Your task to perform on an android device: Add "corsair k70" to the cart on amazon.com Image 0: 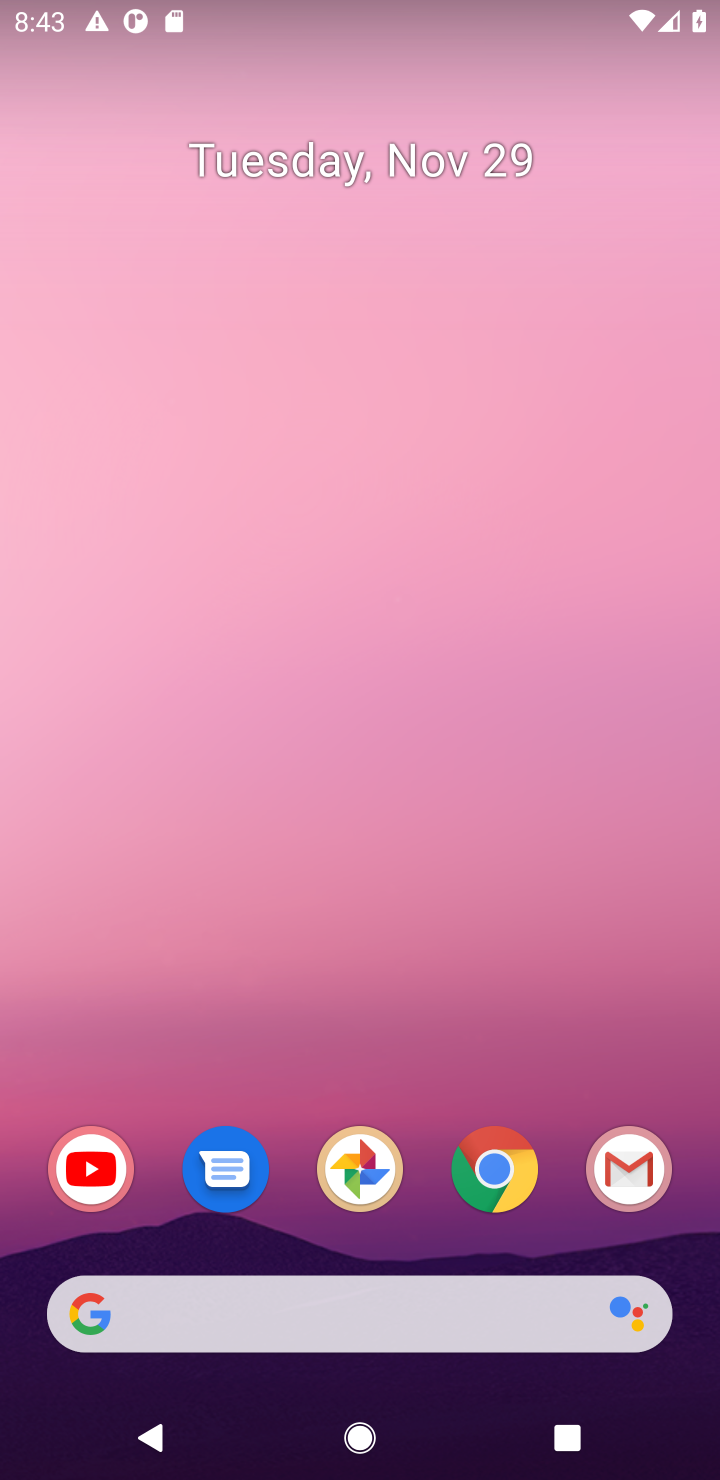
Step 0: click (247, 1328)
Your task to perform on an android device: Add "corsair k70" to the cart on amazon.com Image 1: 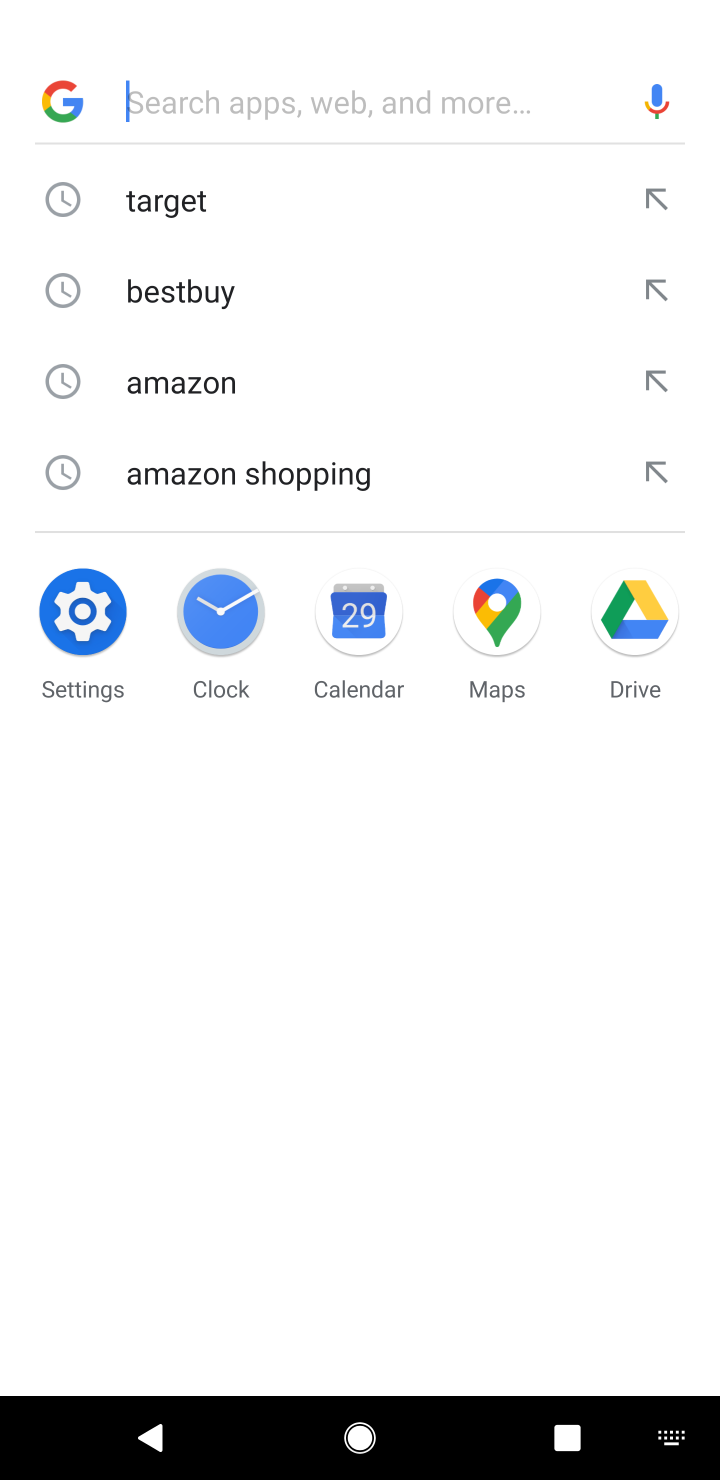
Step 1: click (205, 372)
Your task to perform on an android device: Add "corsair k70" to the cart on amazon.com Image 2: 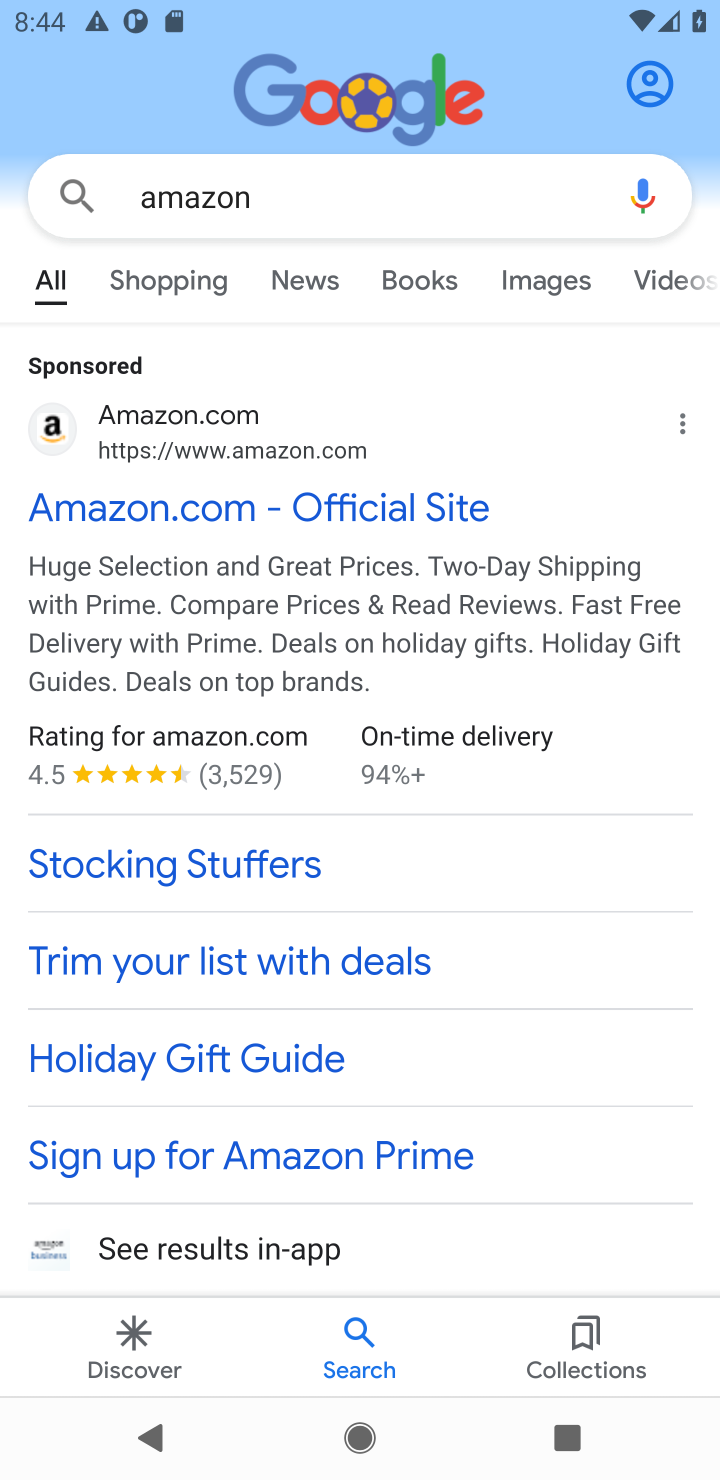
Step 2: click (168, 488)
Your task to perform on an android device: Add "corsair k70" to the cart on amazon.com Image 3: 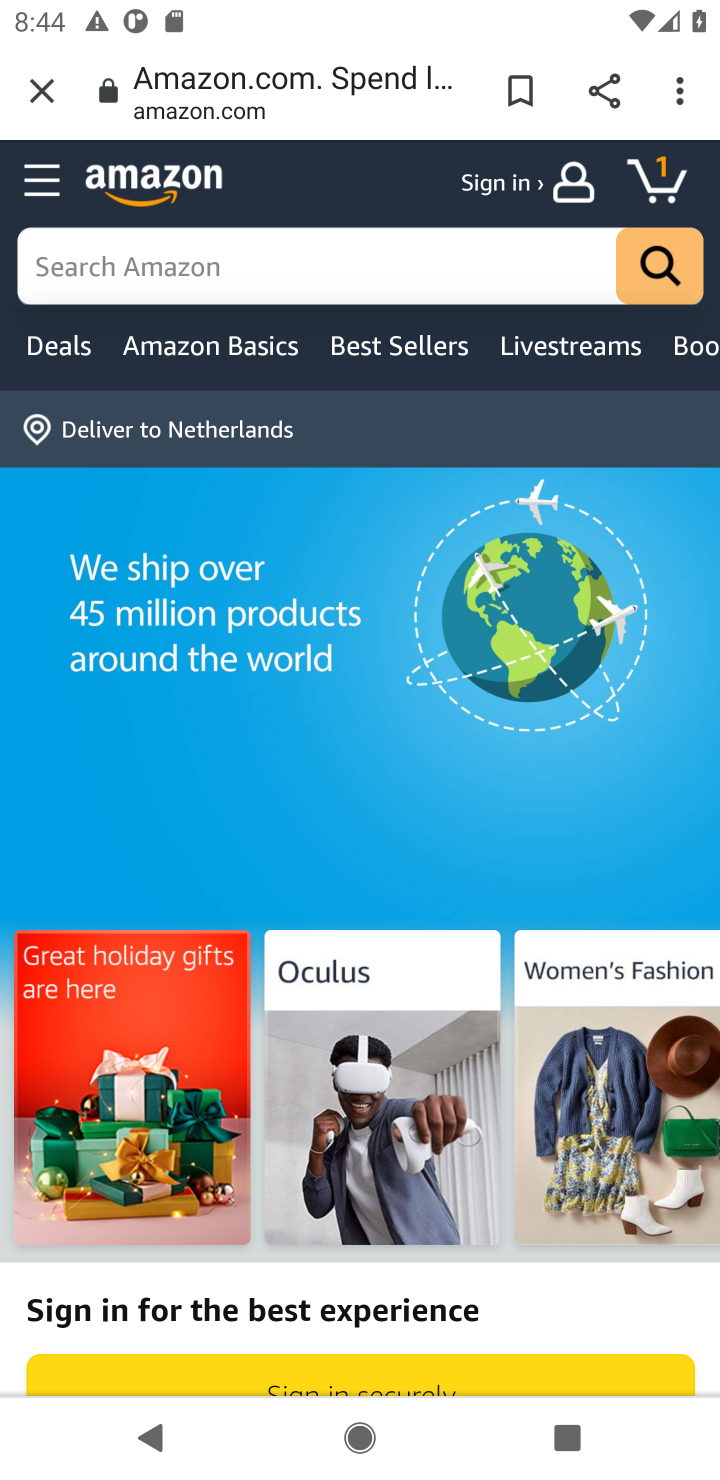
Step 3: click (107, 271)
Your task to perform on an android device: Add "corsair k70" to the cart on amazon.com Image 4: 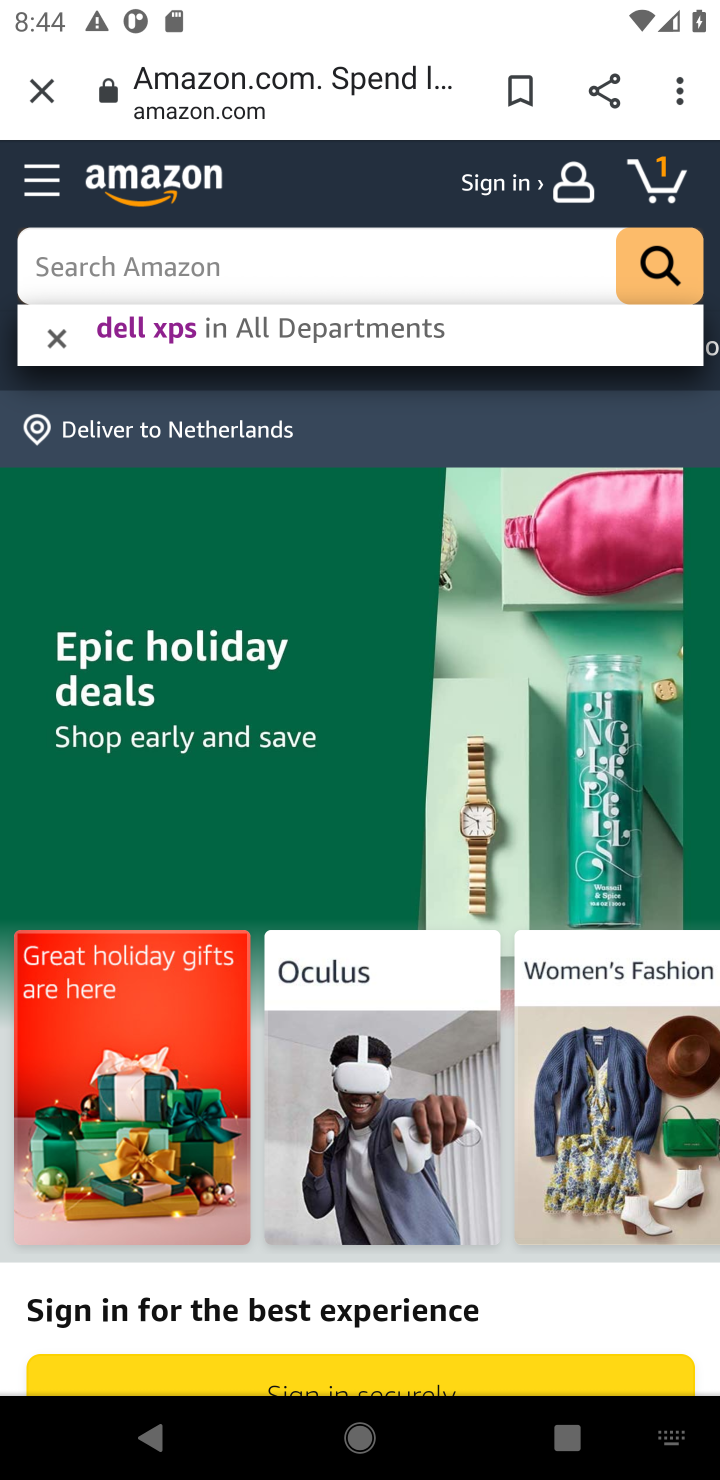
Step 4: type "corsair k70"
Your task to perform on an android device: Add "corsair k70" to the cart on amazon.com Image 5: 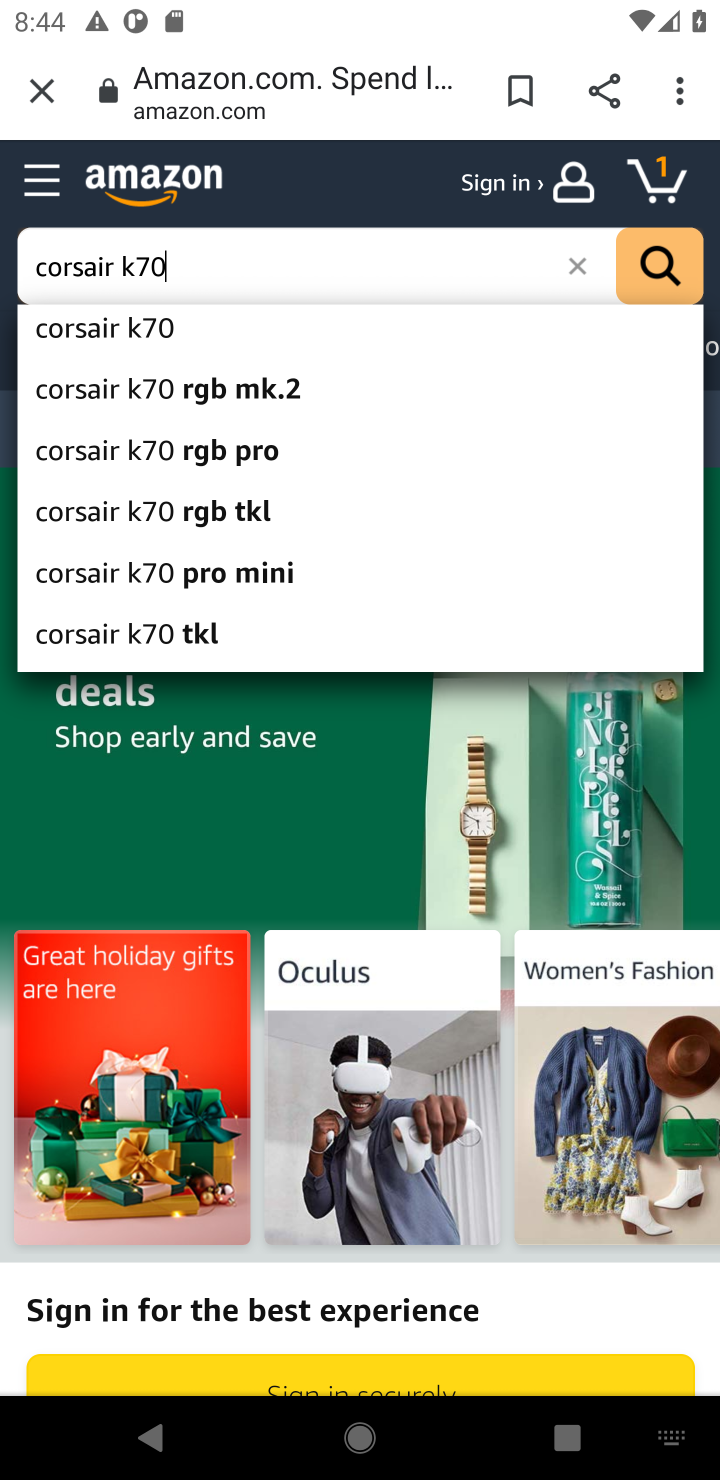
Step 5: click (59, 325)
Your task to perform on an android device: Add "corsair k70" to the cart on amazon.com Image 6: 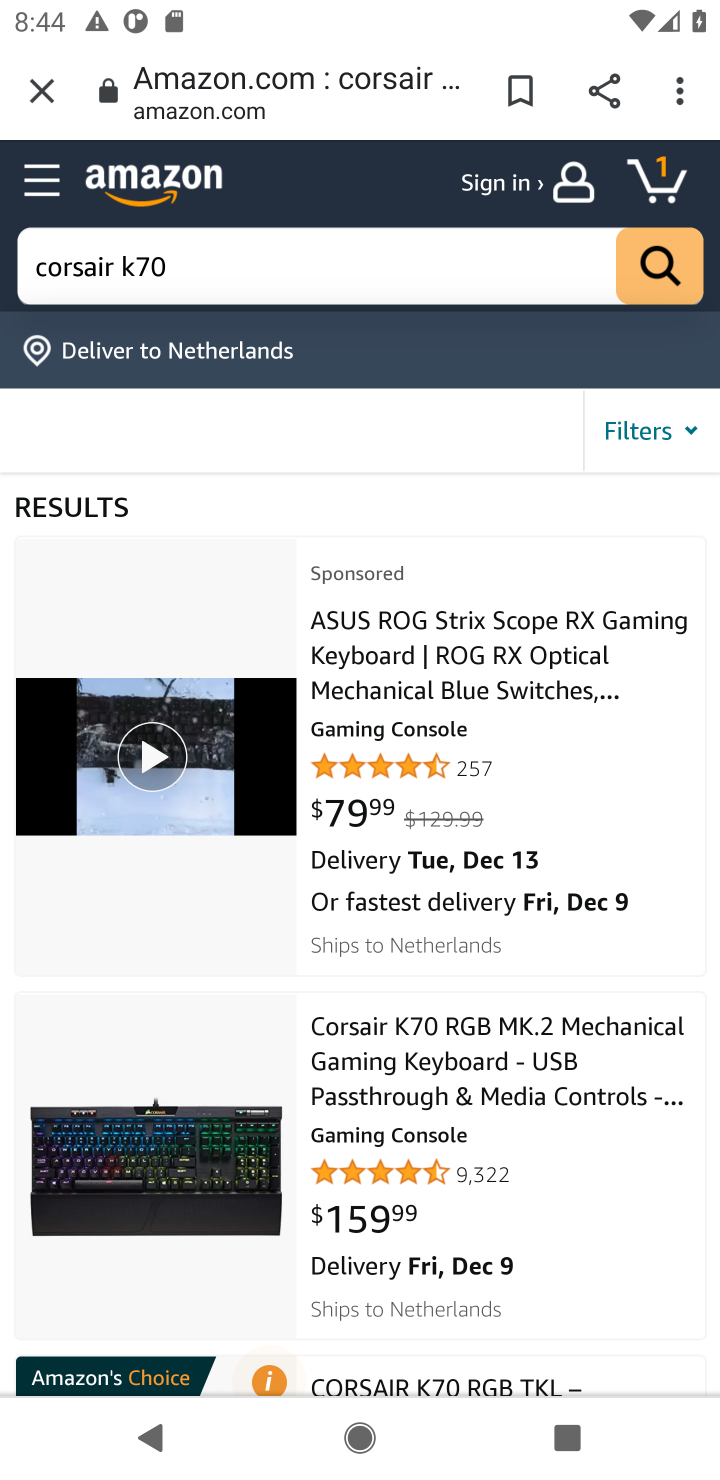
Step 6: click (366, 623)
Your task to perform on an android device: Add "corsair k70" to the cart on amazon.com Image 7: 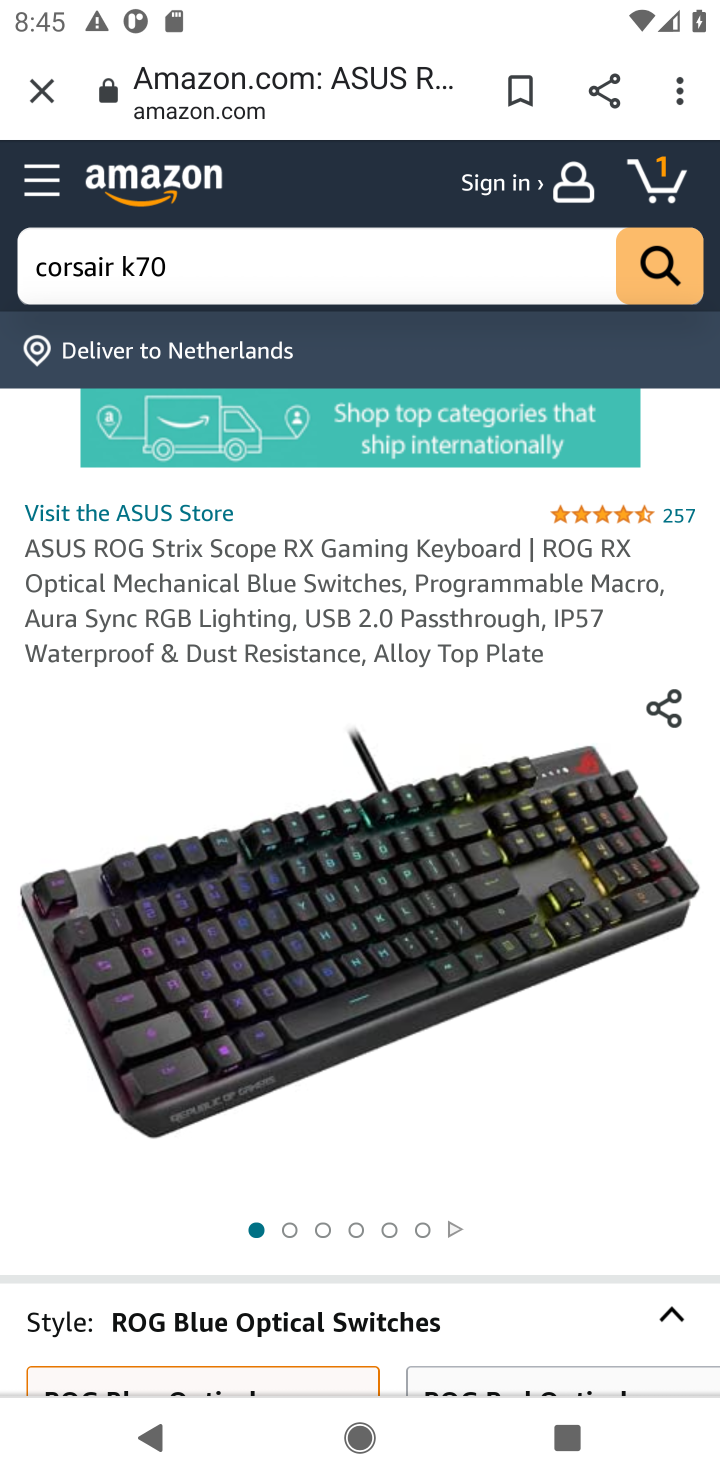
Step 7: drag from (416, 1194) to (362, 783)
Your task to perform on an android device: Add "corsair k70" to the cart on amazon.com Image 8: 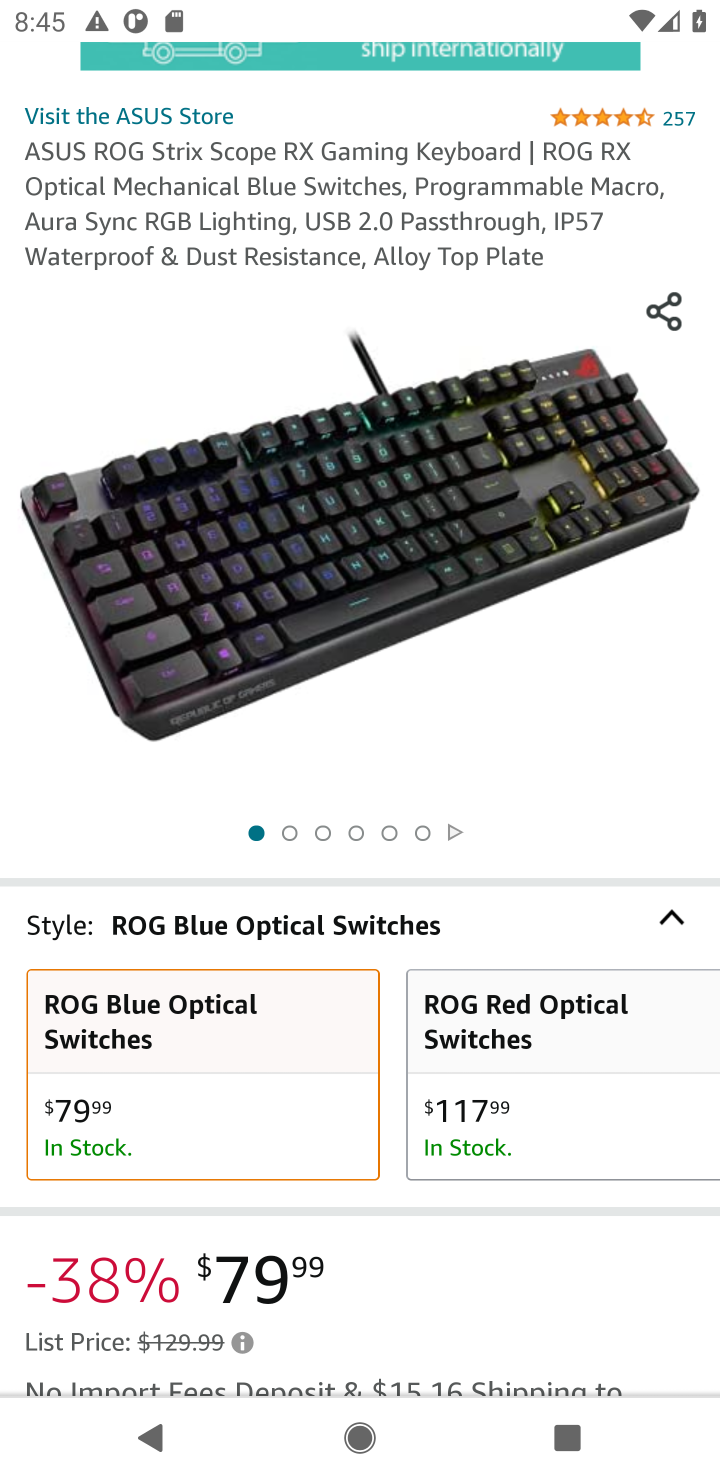
Step 8: click (408, 1296)
Your task to perform on an android device: Add "corsair k70" to the cart on amazon.com Image 9: 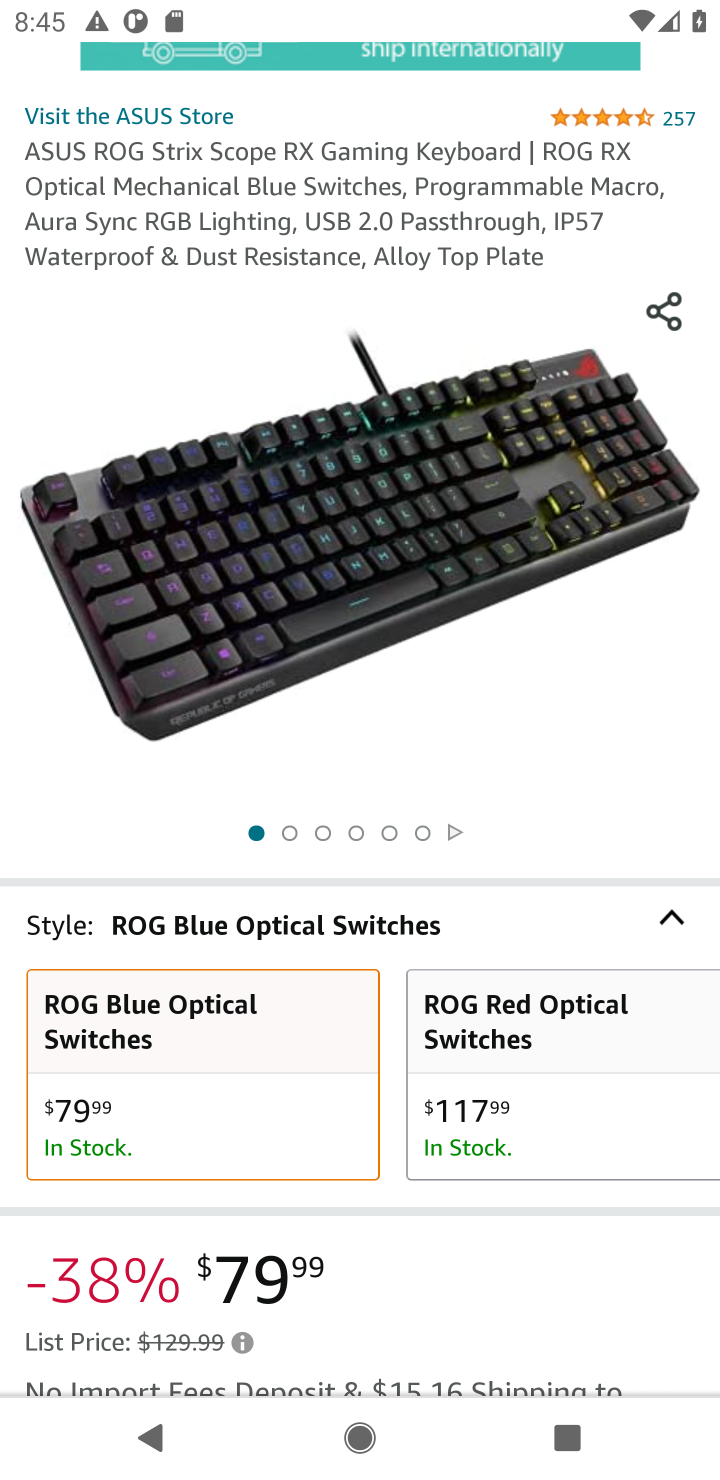
Step 9: drag from (449, 1291) to (425, 1088)
Your task to perform on an android device: Add "corsair k70" to the cart on amazon.com Image 10: 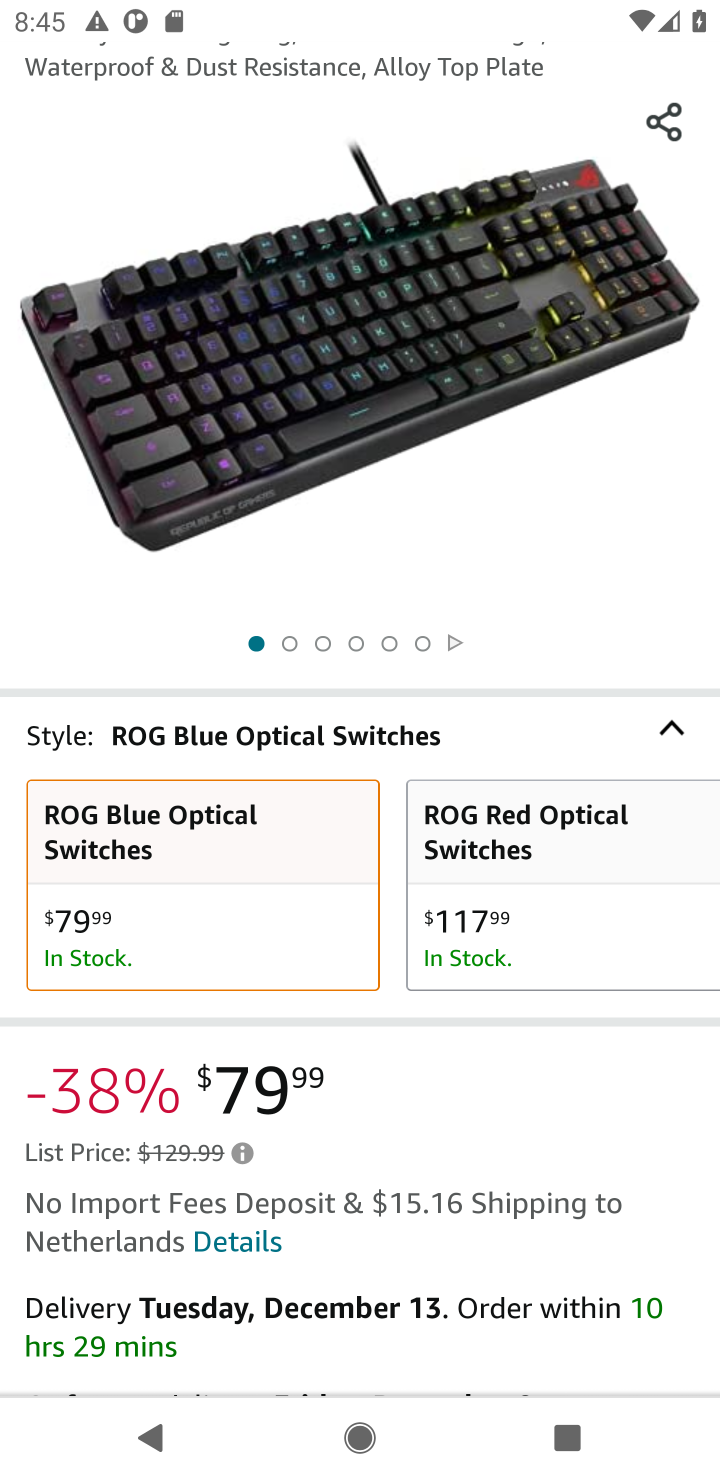
Step 10: drag from (460, 1123) to (460, 727)
Your task to perform on an android device: Add "corsair k70" to the cart on amazon.com Image 11: 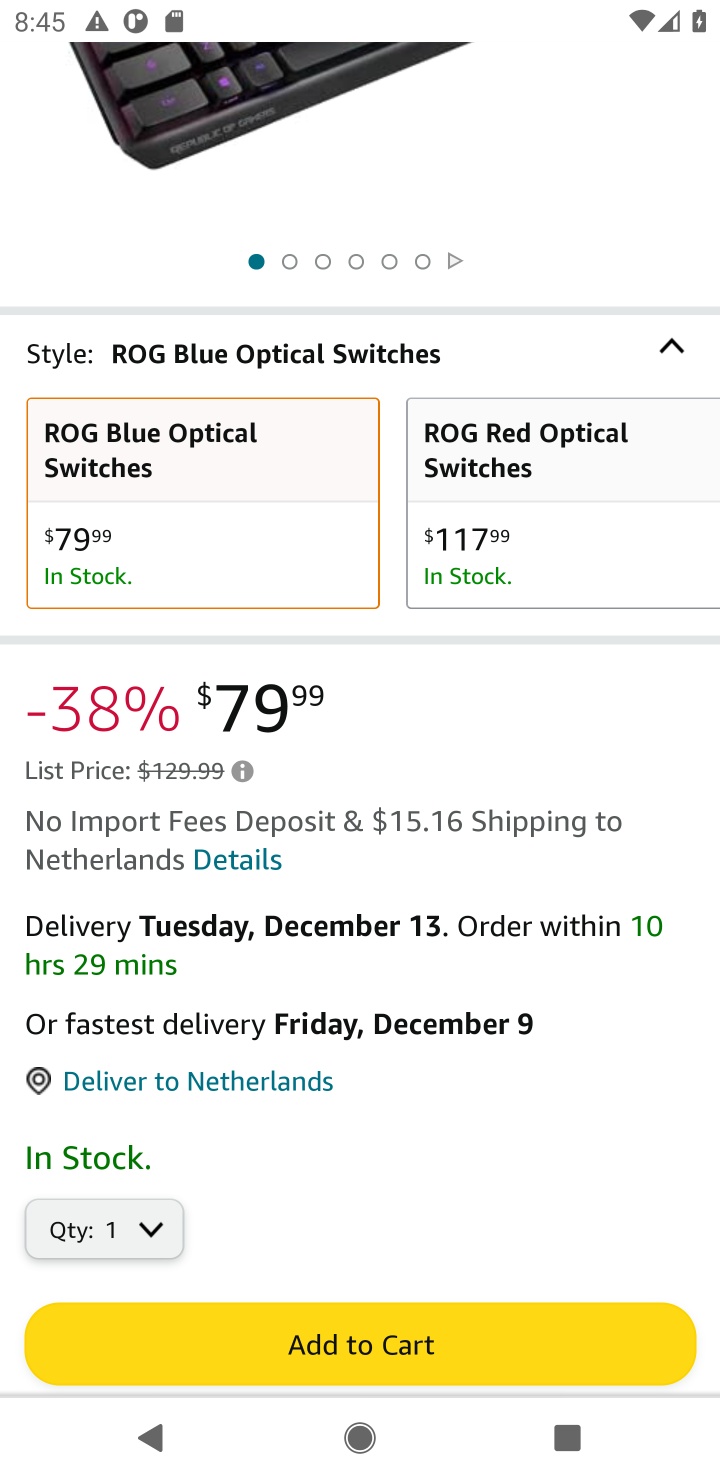
Step 11: click (391, 1323)
Your task to perform on an android device: Add "corsair k70" to the cart on amazon.com Image 12: 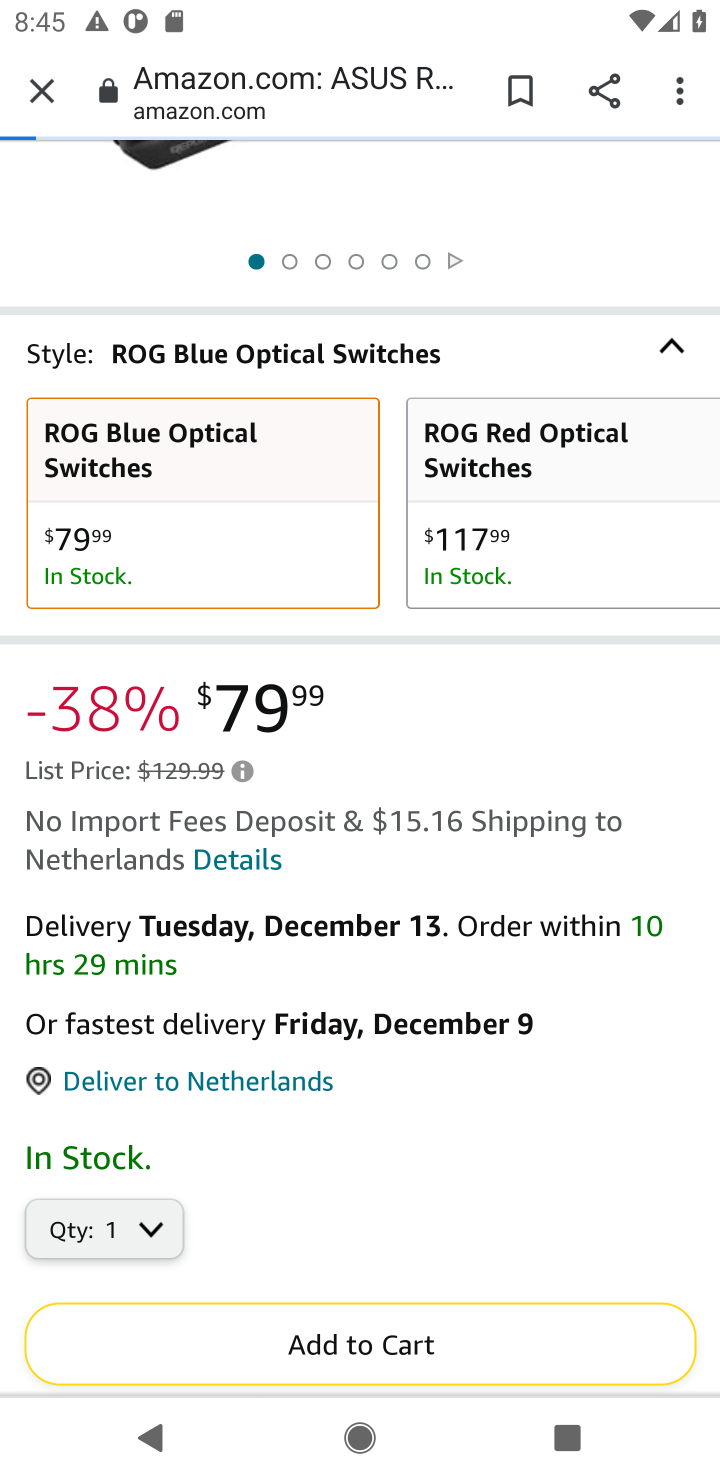
Step 12: task complete